Your task to perform on an android device: turn vacation reply on in the gmail app Image 0: 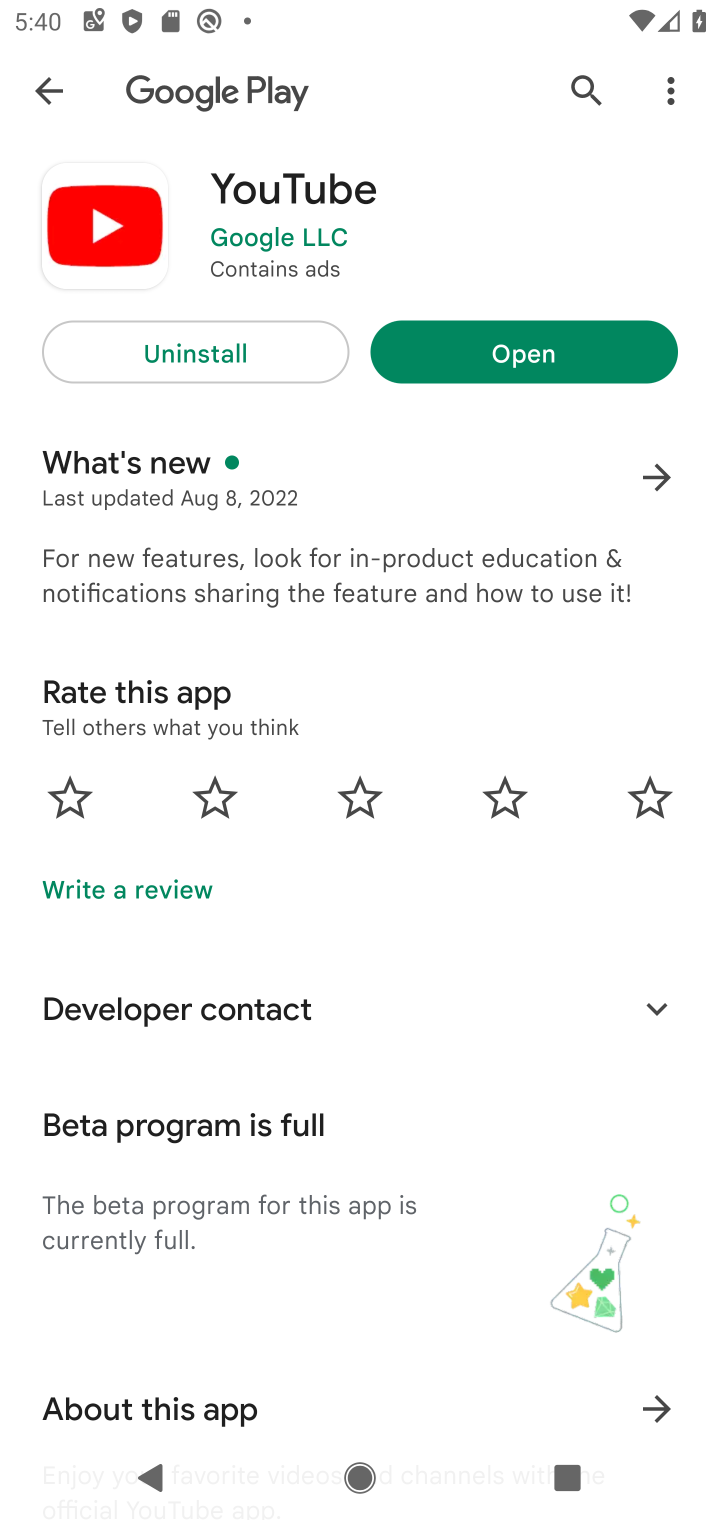
Step 0: press home button
Your task to perform on an android device: turn vacation reply on in the gmail app Image 1: 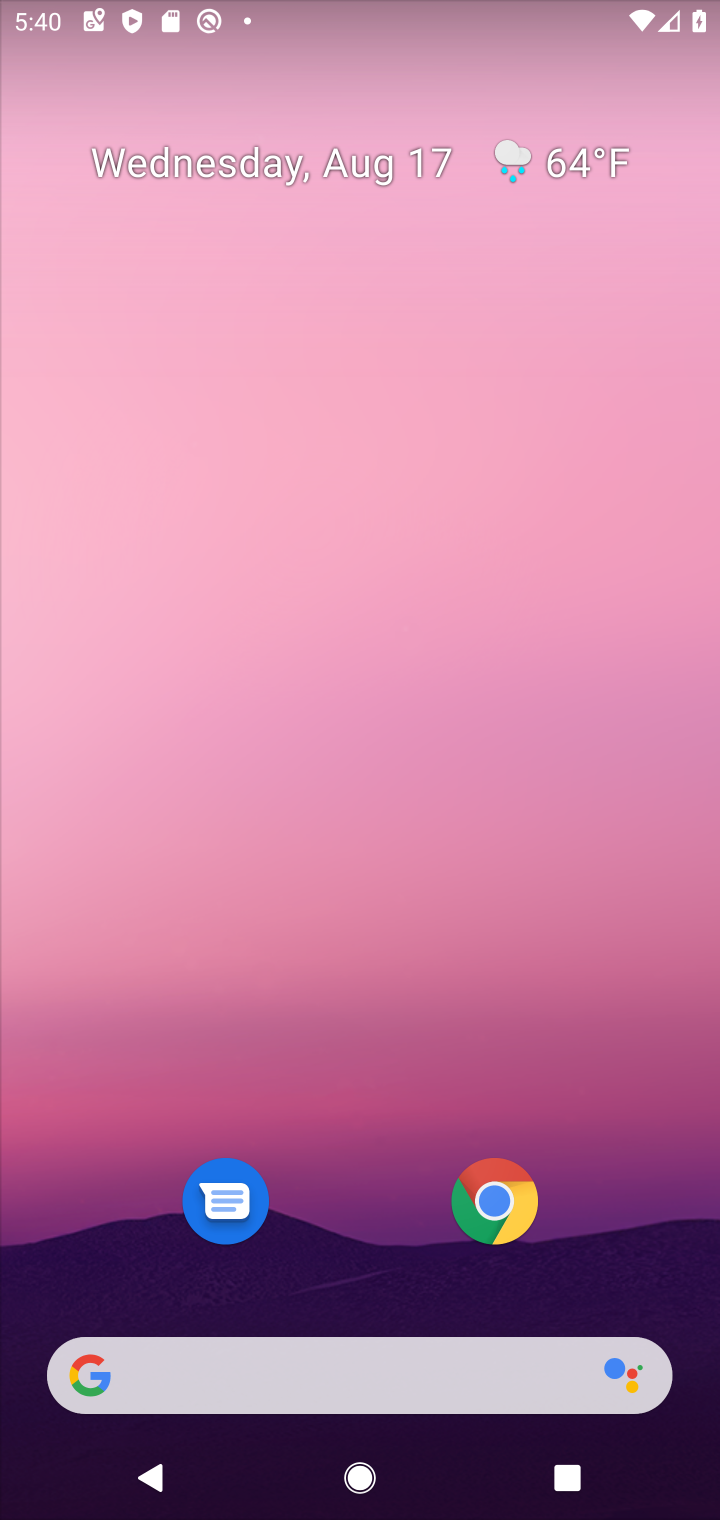
Step 1: drag from (362, 1207) to (370, 423)
Your task to perform on an android device: turn vacation reply on in the gmail app Image 2: 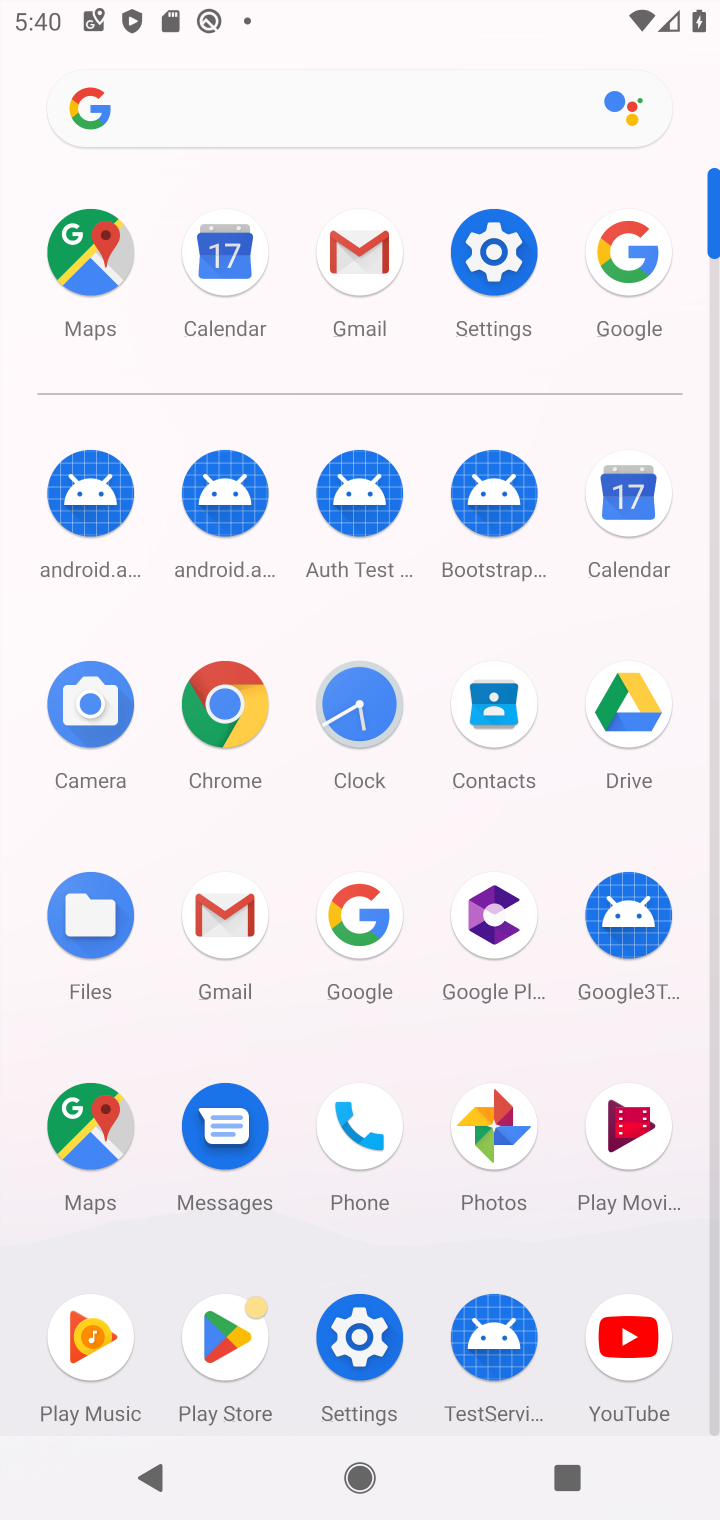
Step 2: click (346, 246)
Your task to perform on an android device: turn vacation reply on in the gmail app Image 3: 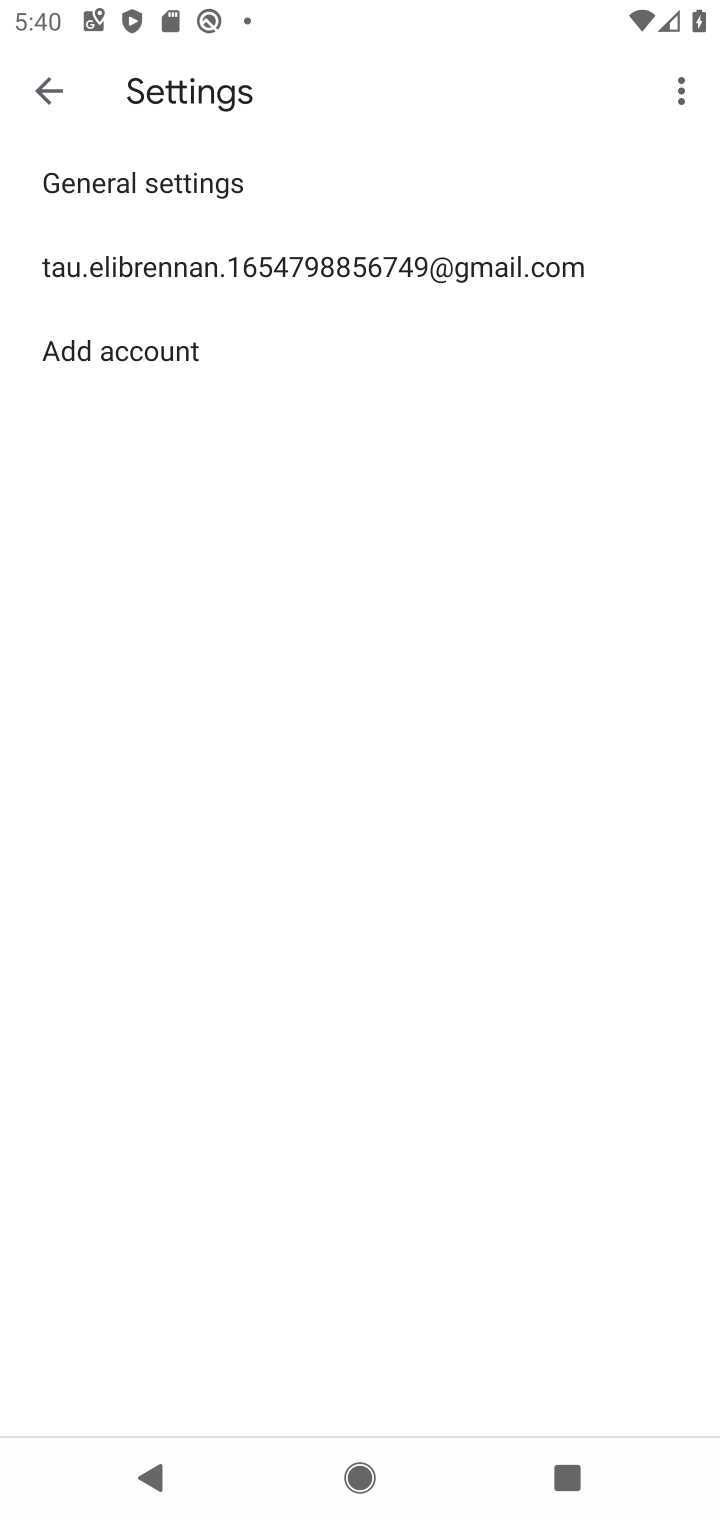
Step 3: click (189, 259)
Your task to perform on an android device: turn vacation reply on in the gmail app Image 4: 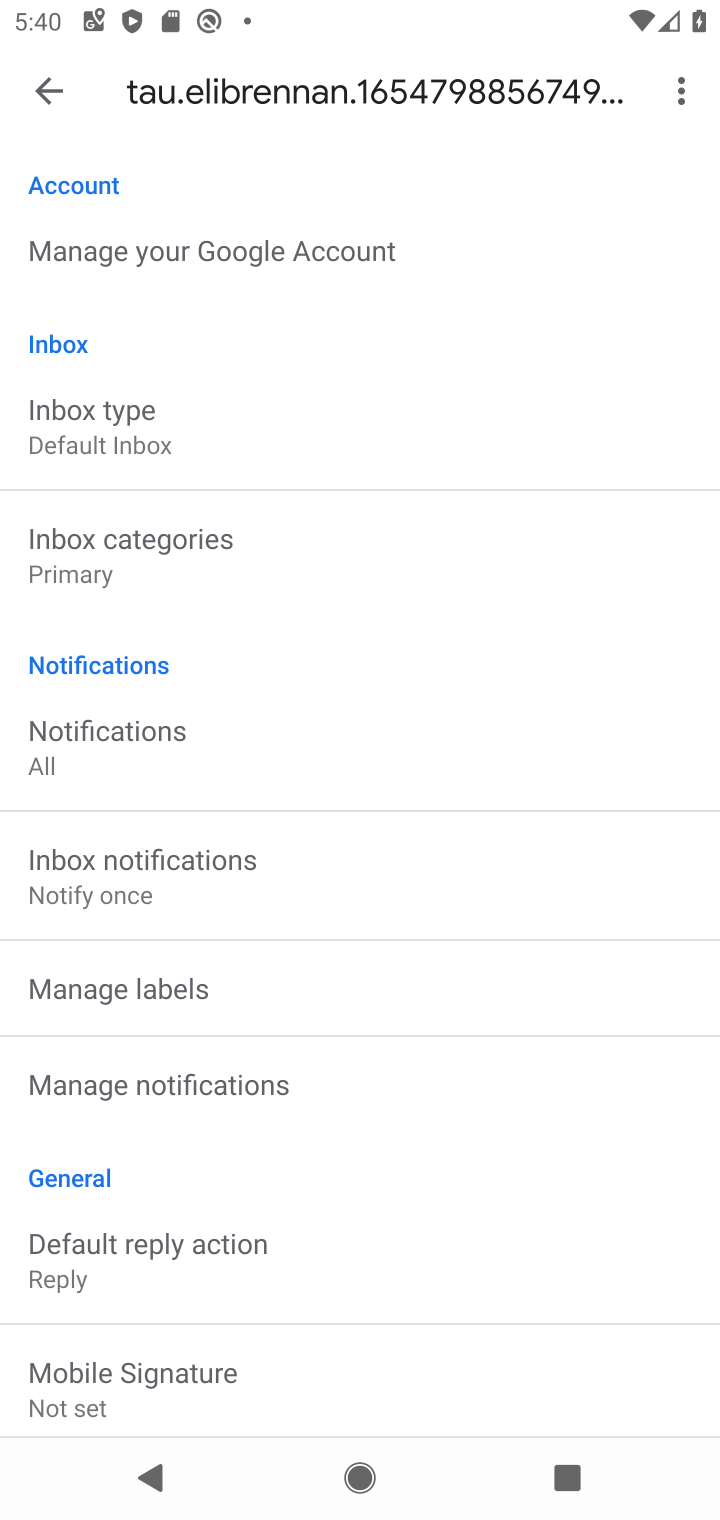
Step 4: drag from (229, 1197) to (159, 371)
Your task to perform on an android device: turn vacation reply on in the gmail app Image 5: 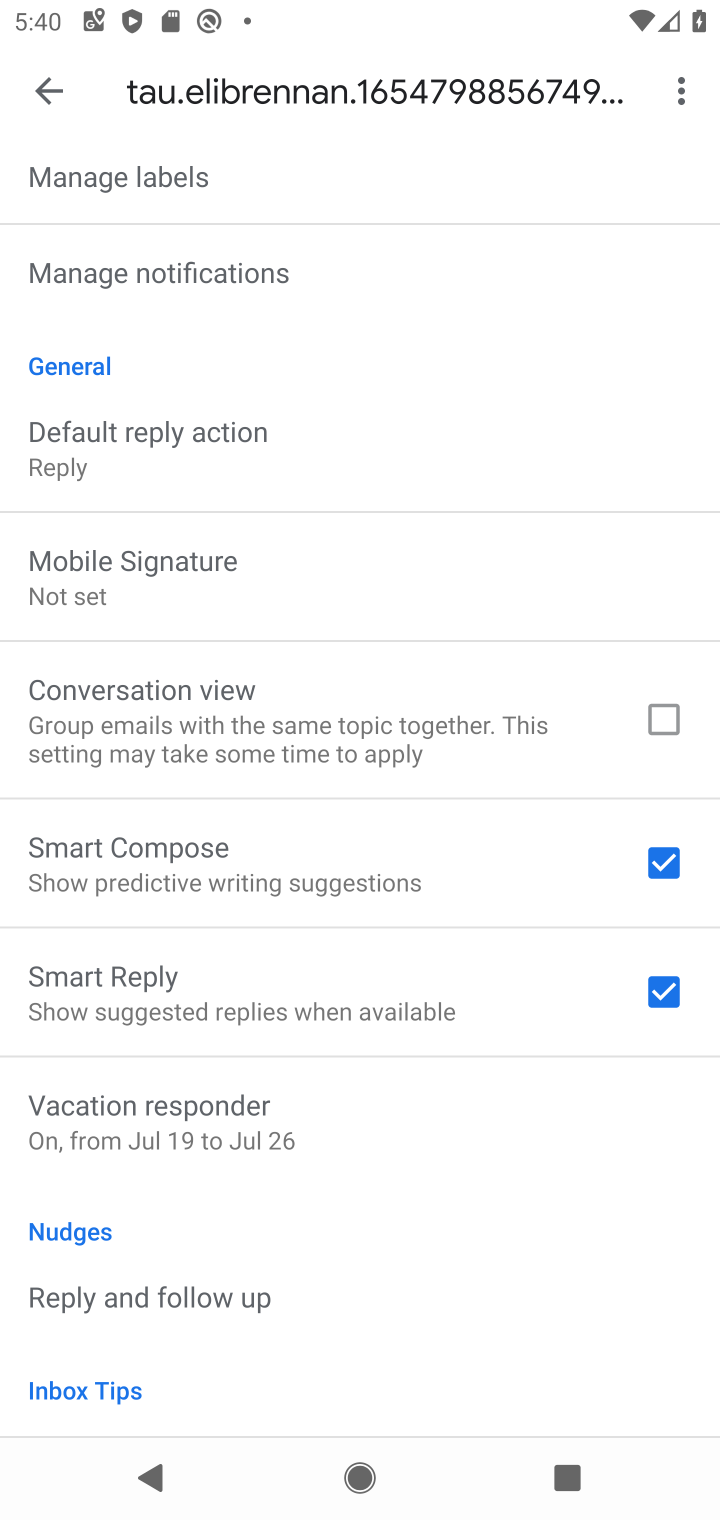
Step 5: click (187, 1122)
Your task to perform on an android device: turn vacation reply on in the gmail app Image 6: 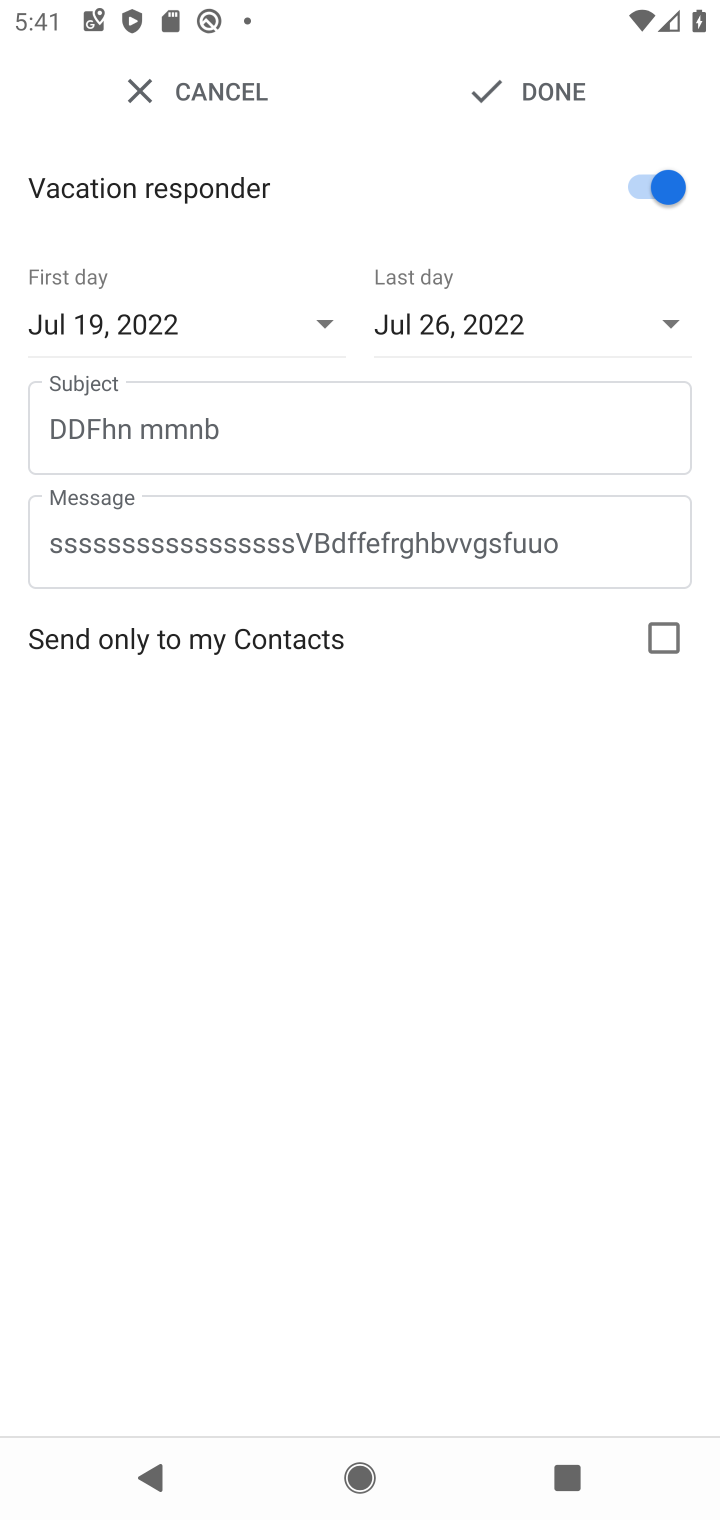
Step 6: task complete